Your task to perform on an android device: Open Chrome and go to the settings page Image 0: 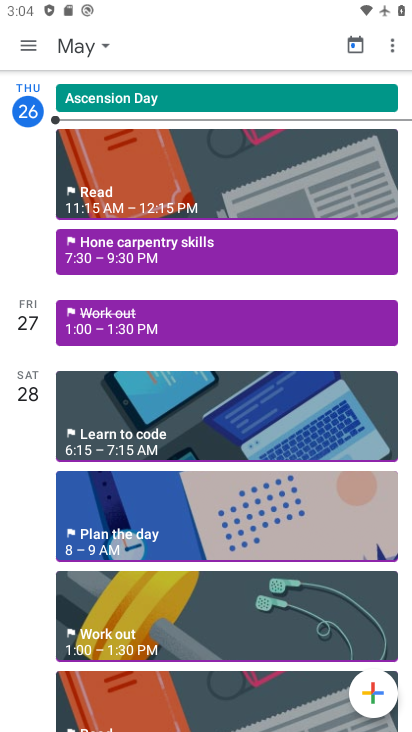
Step 0: press home button
Your task to perform on an android device: Open Chrome and go to the settings page Image 1: 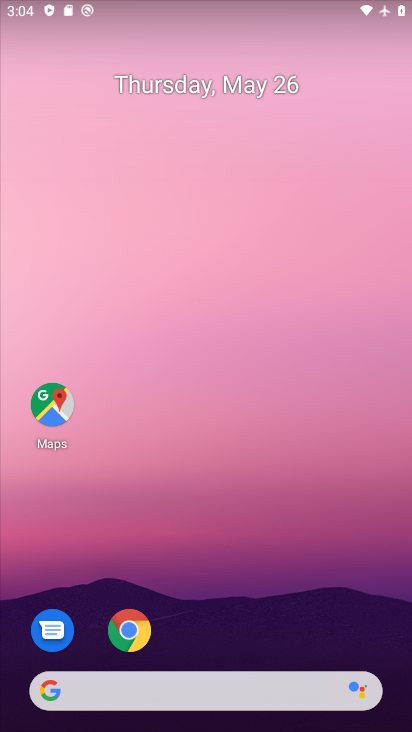
Step 1: click (129, 628)
Your task to perform on an android device: Open Chrome and go to the settings page Image 2: 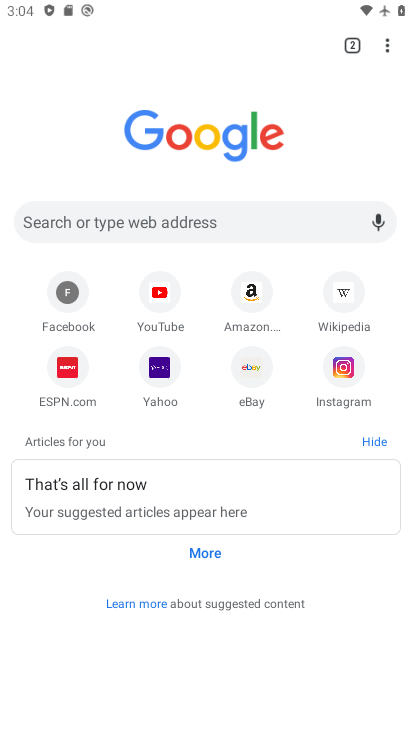
Step 2: click (388, 41)
Your task to perform on an android device: Open Chrome and go to the settings page Image 3: 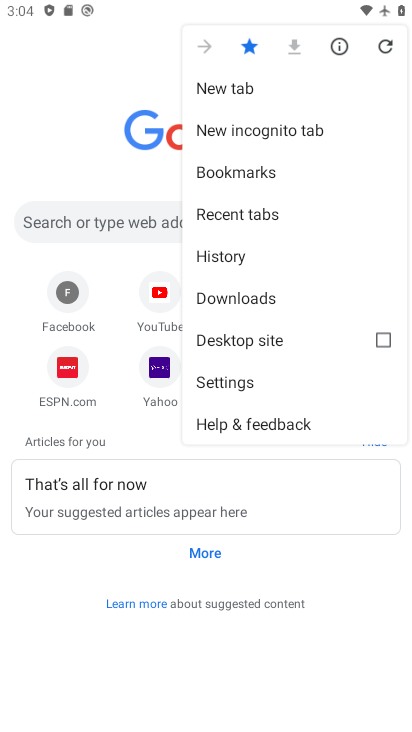
Step 3: click (238, 382)
Your task to perform on an android device: Open Chrome and go to the settings page Image 4: 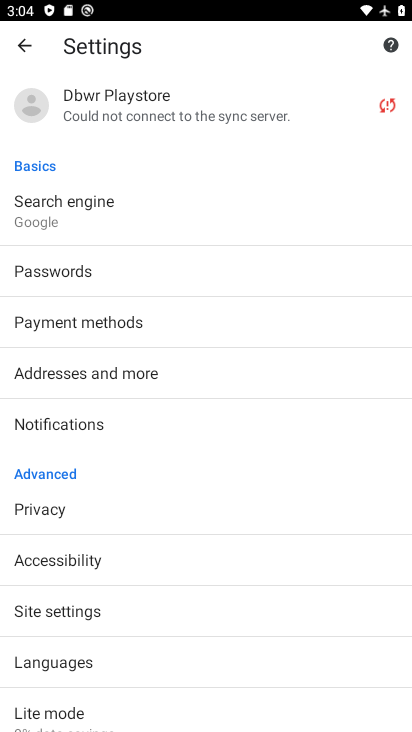
Step 4: task complete